Your task to perform on an android device: read, delete, or share a saved page in the chrome app Image 0: 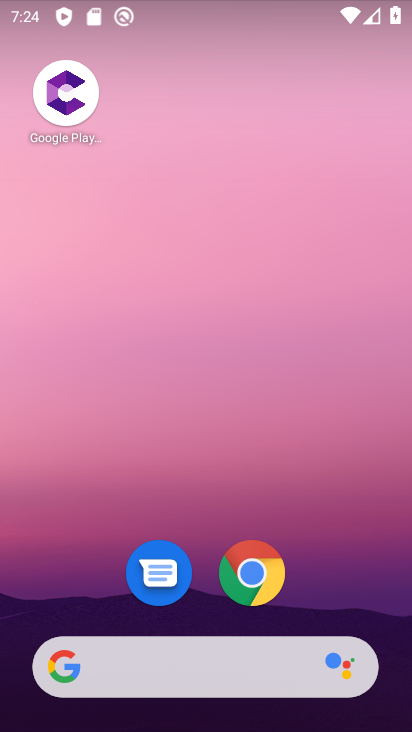
Step 0: drag from (235, 673) to (272, 348)
Your task to perform on an android device: read, delete, or share a saved page in the chrome app Image 1: 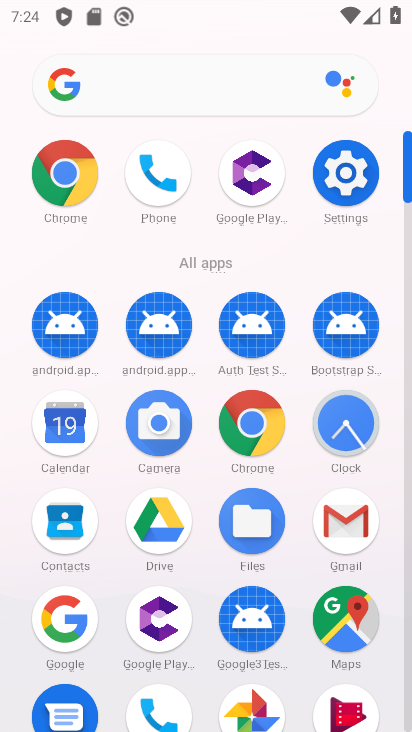
Step 1: click (268, 404)
Your task to perform on an android device: read, delete, or share a saved page in the chrome app Image 2: 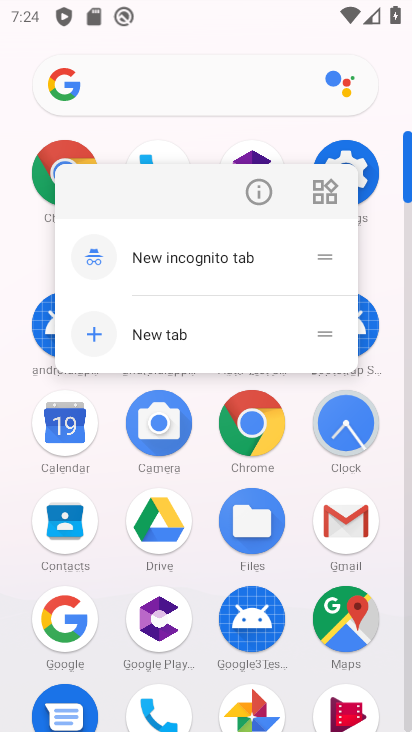
Step 2: click (255, 423)
Your task to perform on an android device: read, delete, or share a saved page in the chrome app Image 3: 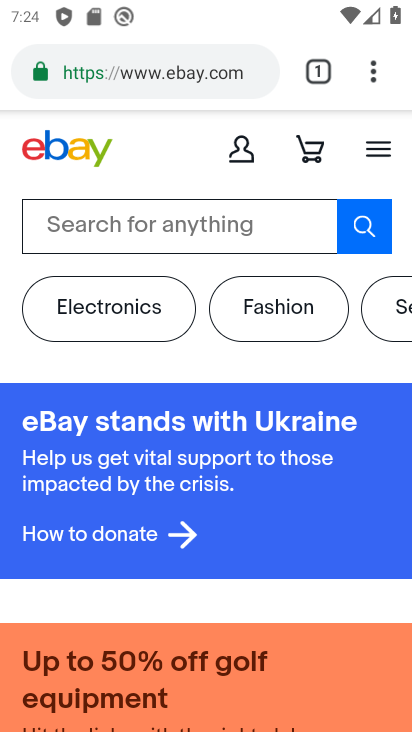
Step 3: click (382, 67)
Your task to perform on an android device: read, delete, or share a saved page in the chrome app Image 4: 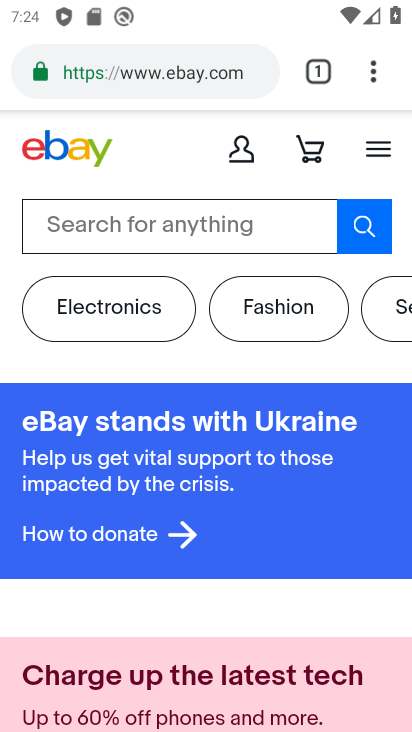
Step 4: click (370, 80)
Your task to perform on an android device: read, delete, or share a saved page in the chrome app Image 5: 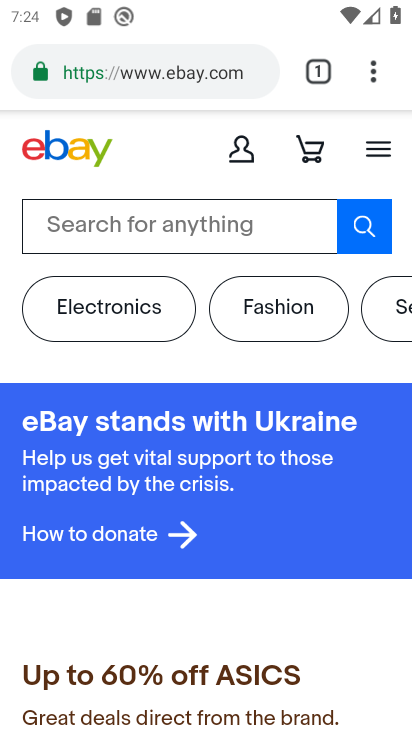
Step 5: click (374, 75)
Your task to perform on an android device: read, delete, or share a saved page in the chrome app Image 6: 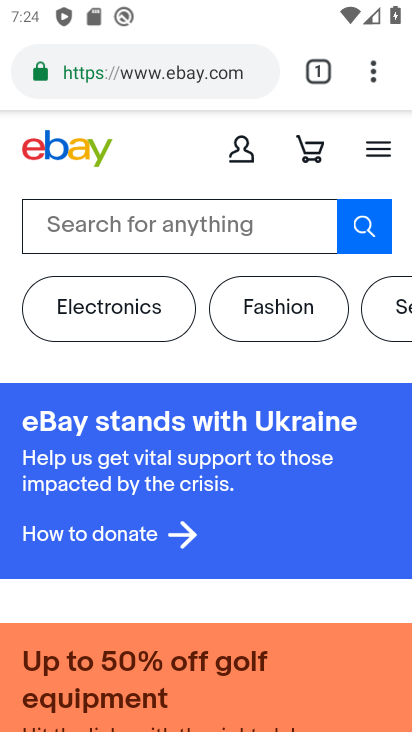
Step 6: click (373, 75)
Your task to perform on an android device: read, delete, or share a saved page in the chrome app Image 7: 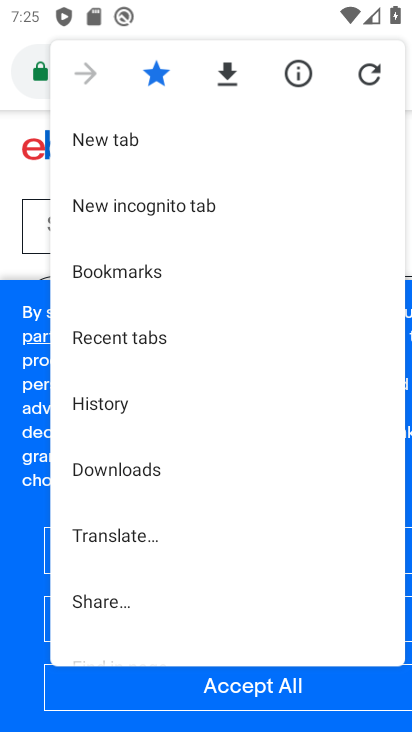
Step 7: click (114, 586)
Your task to perform on an android device: read, delete, or share a saved page in the chrome app Image 8: 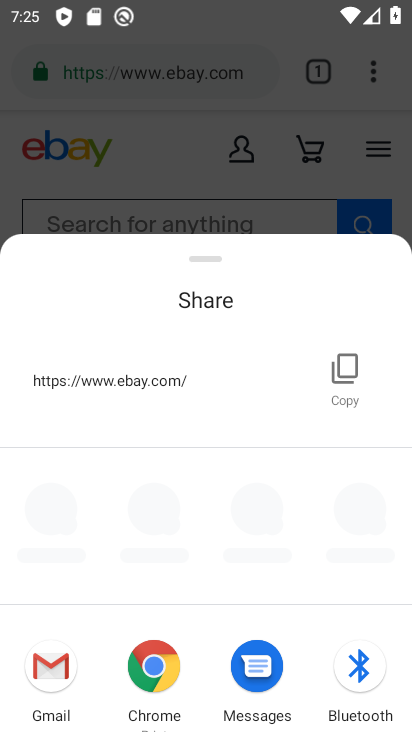
Step 8: click (154, 655)
Your task to perform on an android device: read, delete, or share a saved page in the chrome app Image 9: 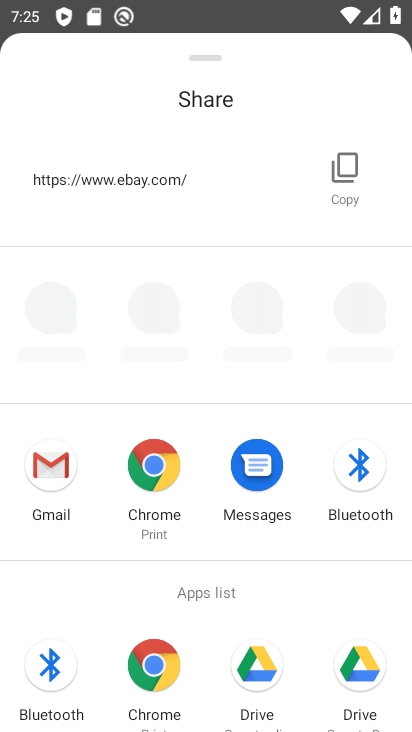
Step 9: click (146, 655)
Your task to perform on an android device: read, delete, or share a saved page in the chrome app Image 10: 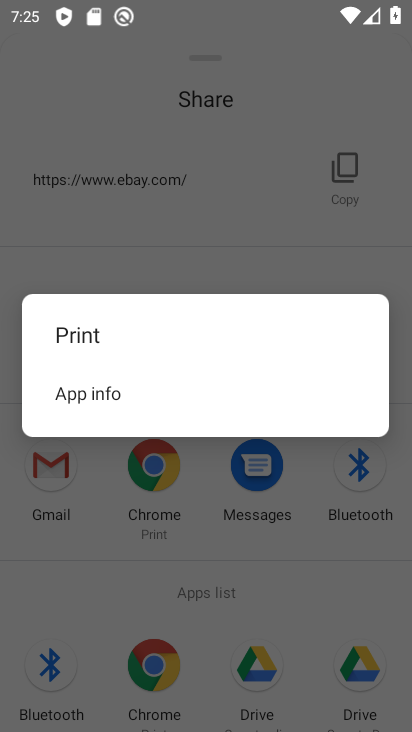
Step 10: click (347, 252)
Your task to perform on an android device: read, delete, or share a saved page in the chrome app Image 11: 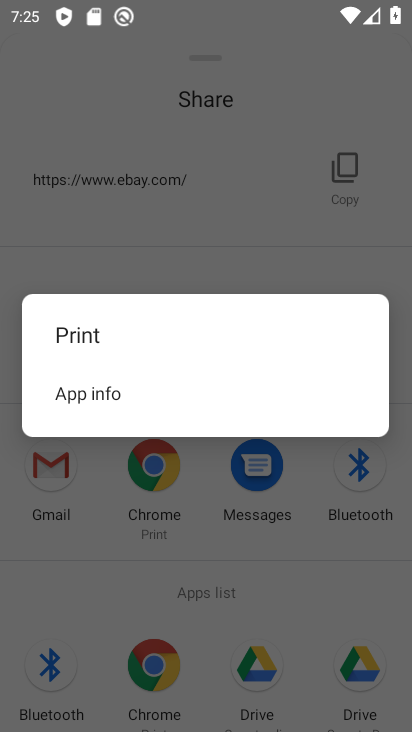
Step 11: task complete